Your task to perform on an android device: Go to network settings Image 0: 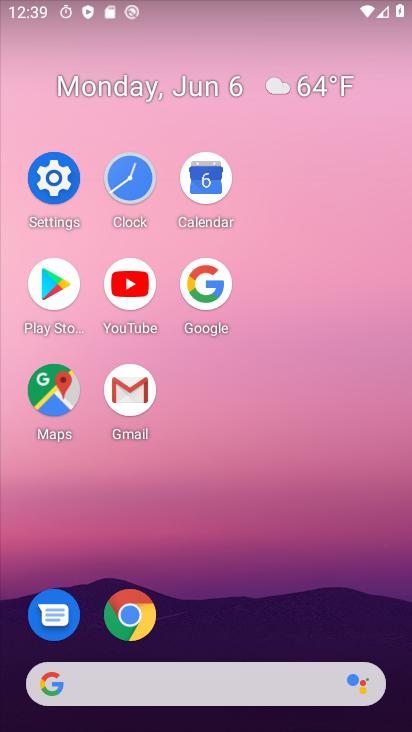
Step 0: click (58, 162)
Your task to perform on an android device: Go to network settings Image 1: 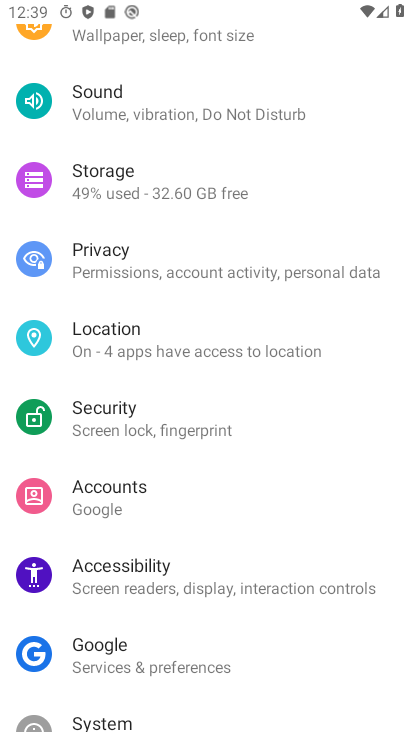
Step 1: drag from (303, 143) to (320, 427)
Your task to perform on an android device: Go to network settings Image 2: 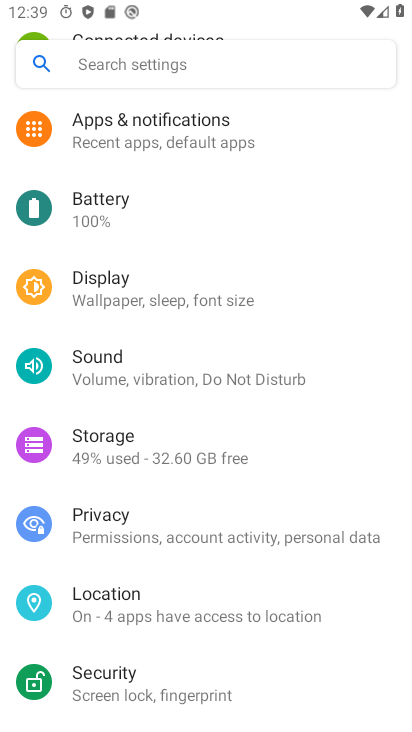
Step 2: drag from (306, 134) to (251, 467)
Your task to perform on an android device: Go to network settings Image 3: 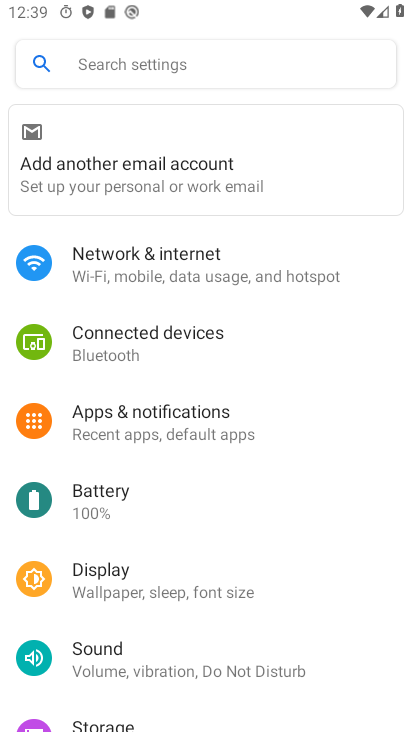
Step 3: click (210, 272)
Your task to perform on an android device: Go to network settings Image 4: 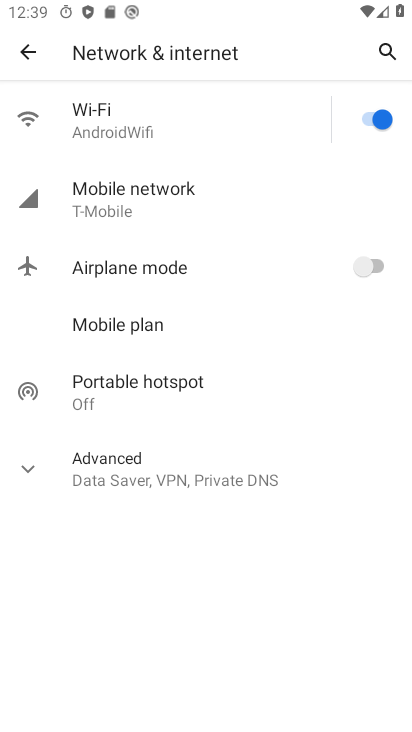
Step 4: task complete